Your task to perform on an android device: Search for Mexican restaurants on Maps Image 0: 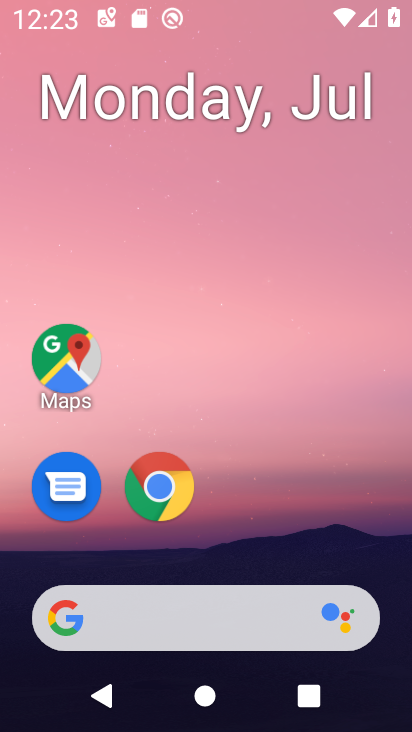
Step 0: press home button
Your task to perform on an android device: Search for Mexican restaurants on Maps Image 1: 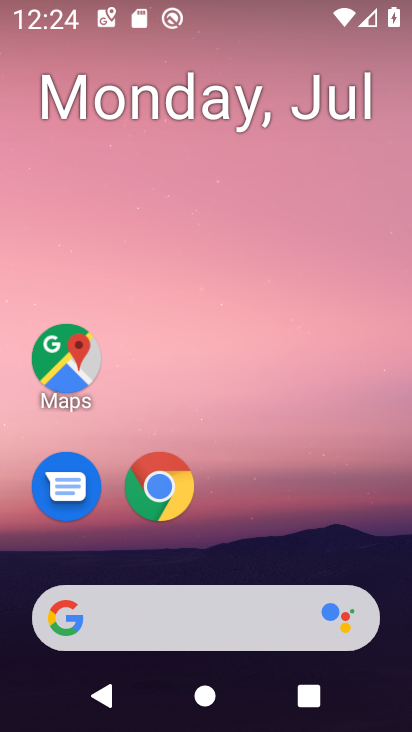
Step 1: drag from (357, 536) to (347, 26)
Your task to perform on an android device: Search for Mexican restaurants on Maps Image 2: 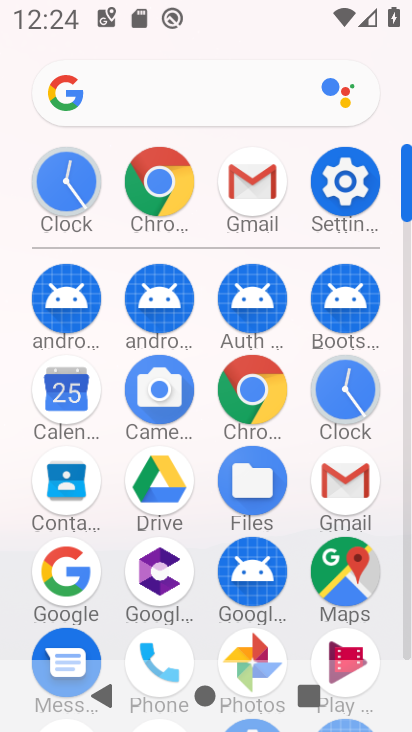
Step 2: click (340, 576)
Your task to perform on an android device: Search for Mexican restaurants on Maps Image 3: 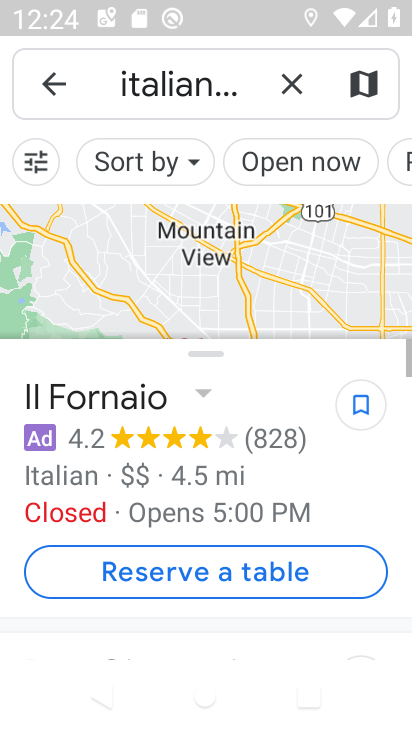
Step 3: press back button
Your task to perform on an android device: Search for Mexican restaurants on Maps Image 4: 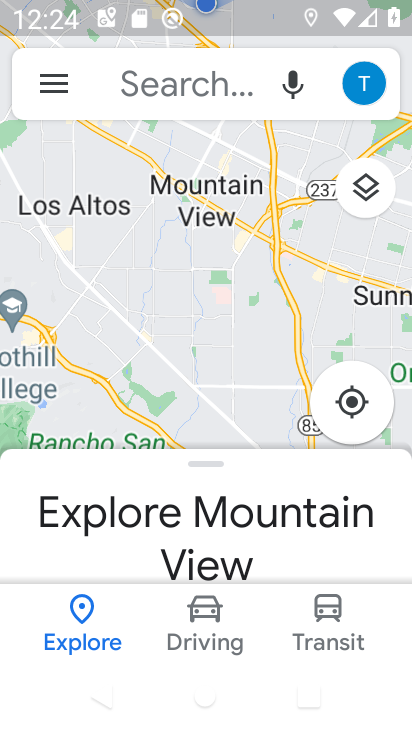
Step 4: click (201, 94)
Your task to perform on an android device: Search for Mexican restaurants on Maps Image 5: 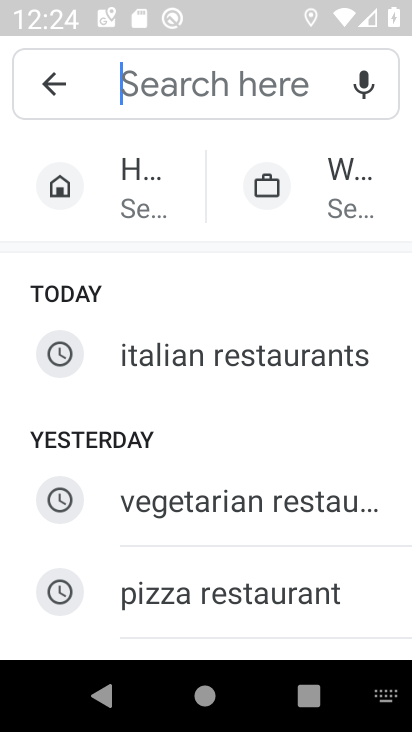
Step 5: type "mexcian restaurants"
Your task to perform on an android device: Search for Mexican restaurants on Maps Image 6: 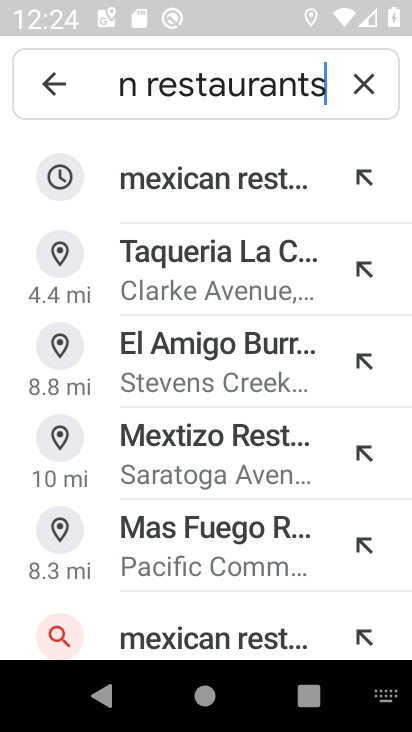
Step 6: click (216, 180)
Your task to perform on an android device: Search for Mexican restaurants on Maps Image 7: 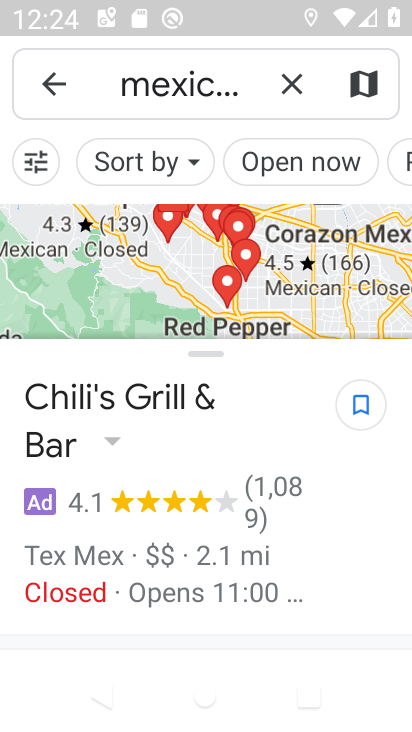
Step 7: task complete